Your task to perform on an android device: delete the emails in spam in the gmail app Image 0: 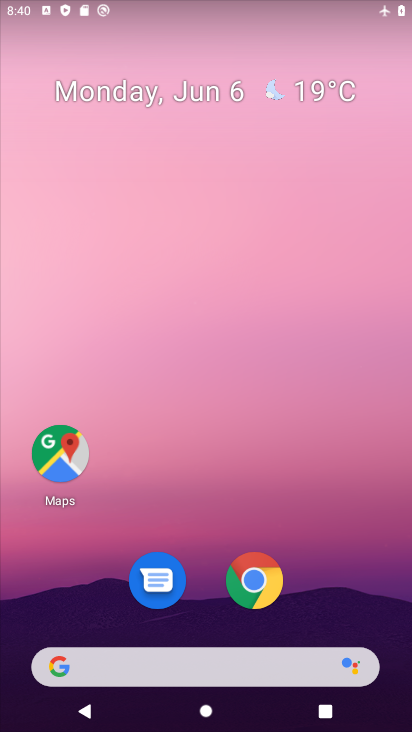
Step 0: drag from (273, 655) to (280, 92)
Your task to perform on an android device: delete the emails in spam in the gmail app Image 1: 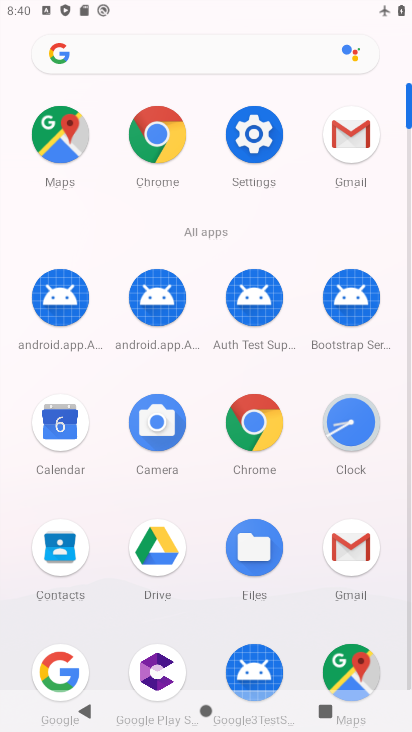
Step 1: click (333, 547)
Your task to perform on an android device: delete the emails in spam in the gmail app Image 2: 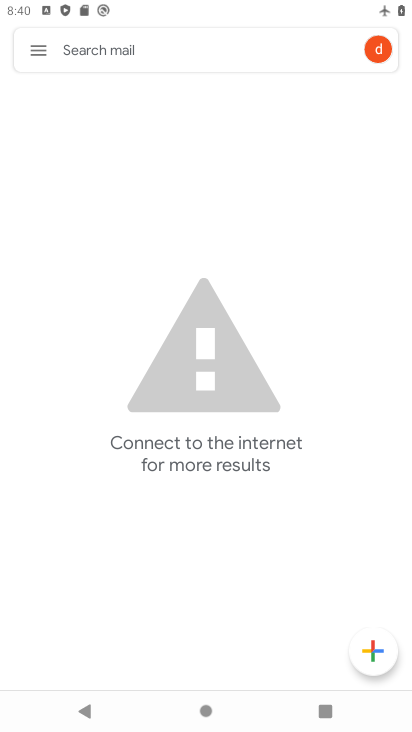
Step 2: click (19, 57)
Your task to perform on an android device: delete the emails in spam in the gmail app Image 3: 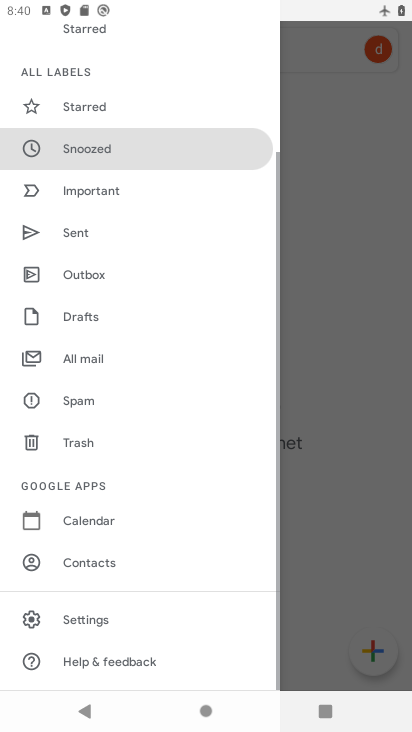
Step 3: click (67, 400)
Your task to perform on an android device: delete the emails in spam in the gmail app Image 4: 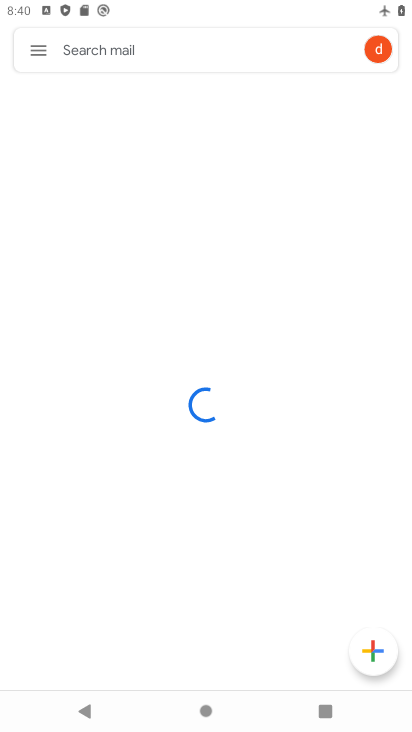
Step 4: task complete